Your task to perform on an android device: Open the stopwatch Image 0: 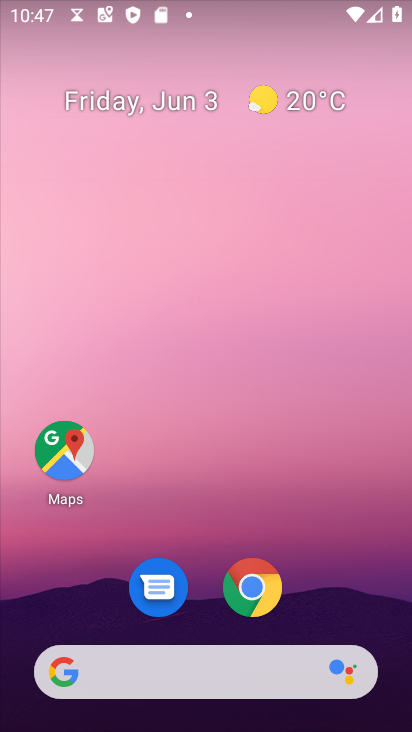
Step 0: drag from (297, 386) to (218, 10)
Your task to perform on an android device: Open the stopwatch Image 1: 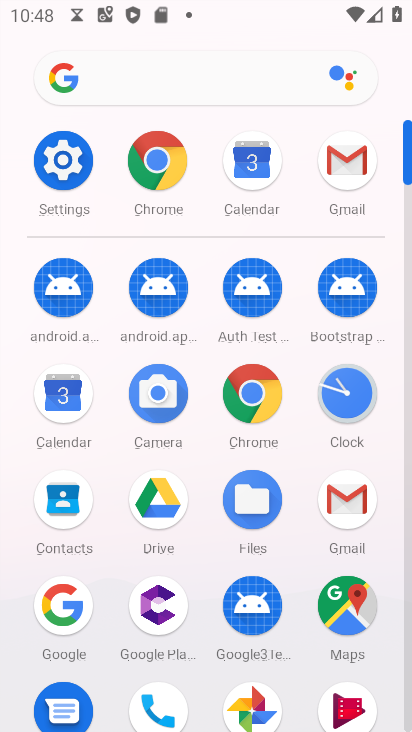
Step 1: click (340, 396)
Your task to perform on an android device: Open the stopwatch Image 2: 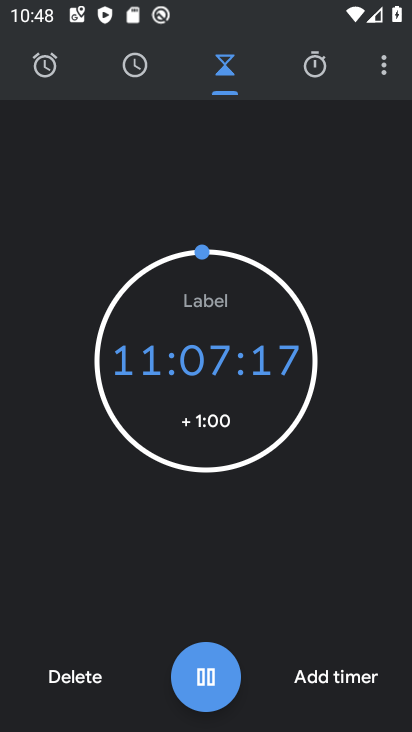
Step 2: click (303, 82)
Your task to perform on an android device: Open the stopwatch Image 3: 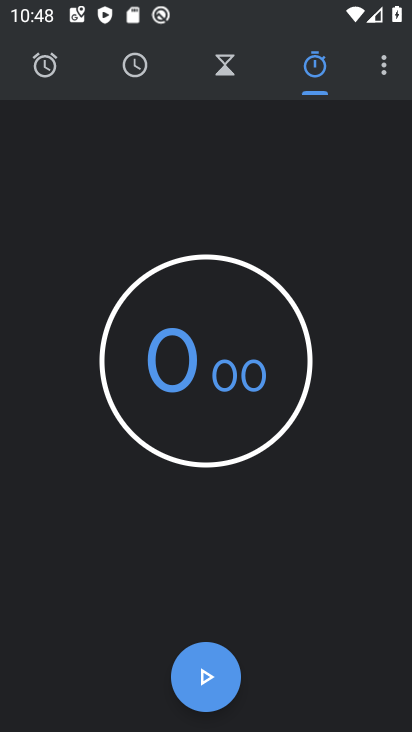
Step 3: task complete